Your task to perform on an android device: toggle show notifications on the lock screen Image 0: 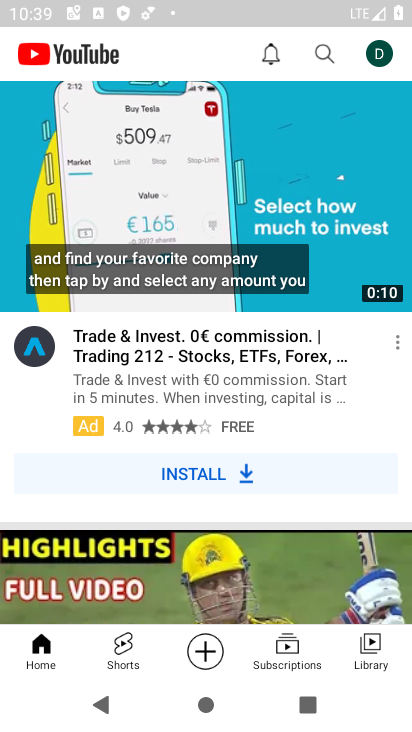
Step 0: press home button
Your task to perform on an android device: toggle show notifications on the lock screen Image 1: 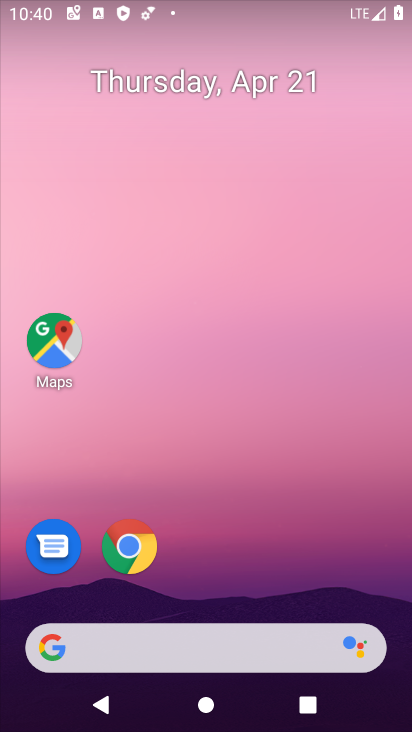
Step 1: drag from (403, 638) to (338, 173)
Your task to perform on an android device: toggle show notifications on the lock screen Image 2: 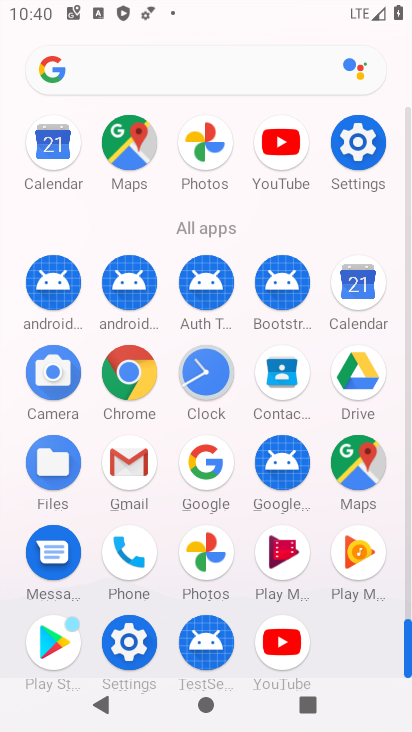
Step 2: click (128, 644)
Your task to perform on an android device: toggle show notifications on the lock screen Image 3: 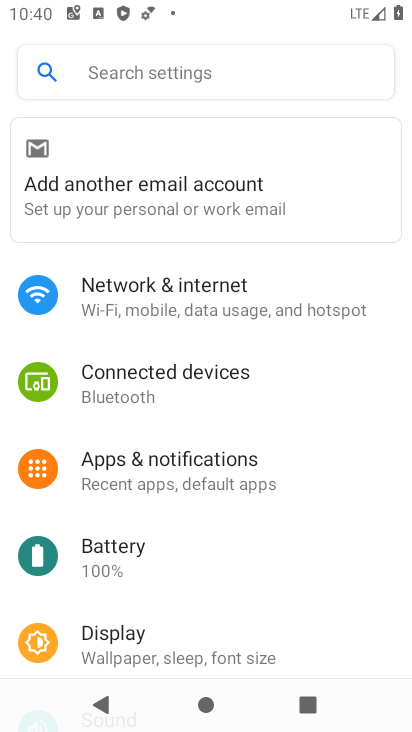
Step 3: click (139, 474)
Your task to perform on an android device: toggle show notifications on the lock screen Image 4: 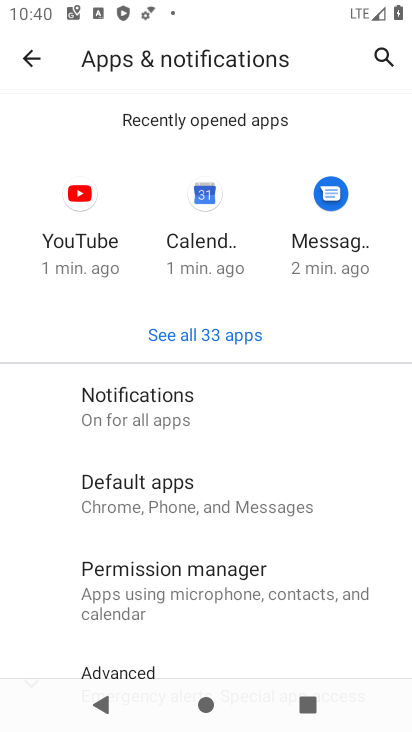
Step 4: click (120, 395)
Your task to perform on an android device: toggle show notifications on the lock screen Image 5: 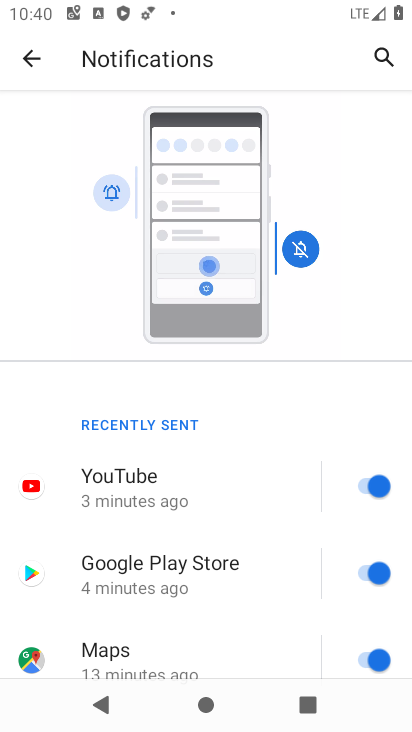
Step 5: drag from (309, 648) to (266, 273)
Your task to perform on an android device: toggle show notifications on the lock screen Image 6: 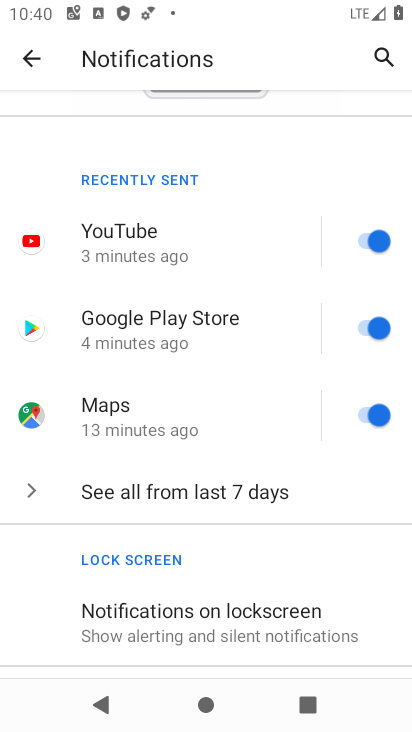
Step 6: drag from (328, 541) to (301, 217)
Your task to perform on an android device: toggle show notifications on the lock screen Image 7: 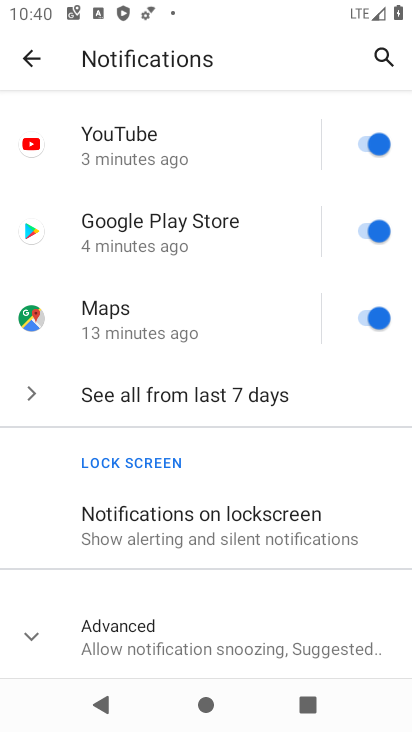
Step 7: click (168, 513)
Your task to perform on an android device: toggle show notifications on the lock screen Image 8: 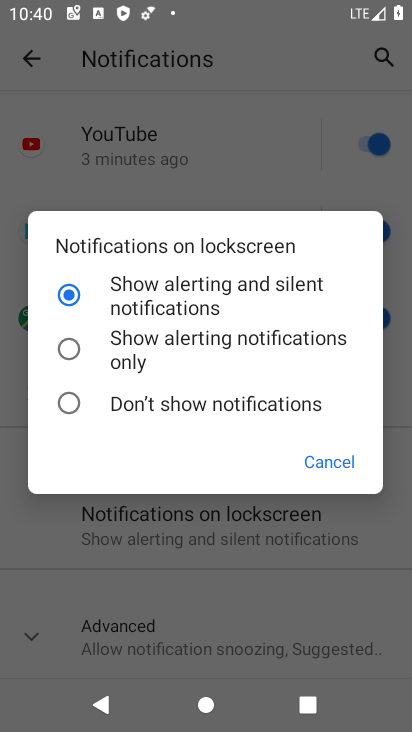
Step 8: click (63, 350)
Your task to perform on an android device: toggle show notifications on the lock screen Image 9: 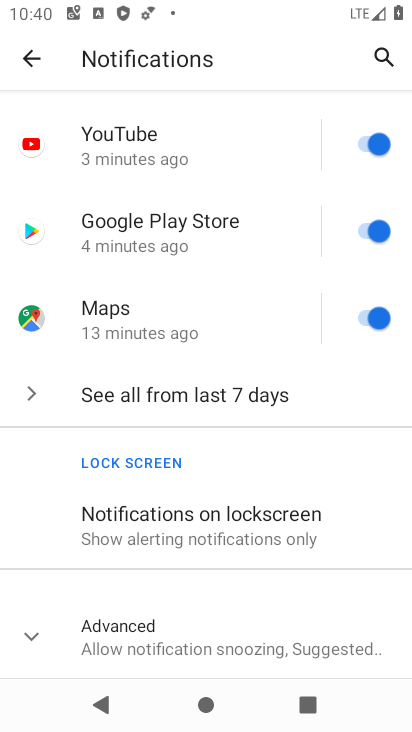
Step 9: task complete